Your task to perform on an android device: clear history in the chrome app Image 0: 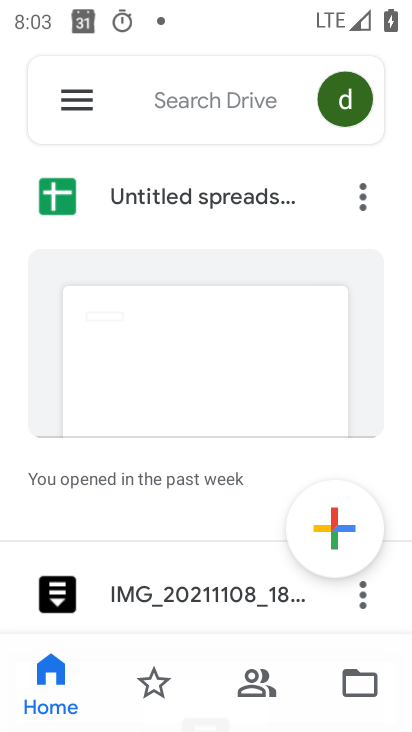
Step 0: press home button
Your task to perform on an android device: clear history in the chrome app Image 1: 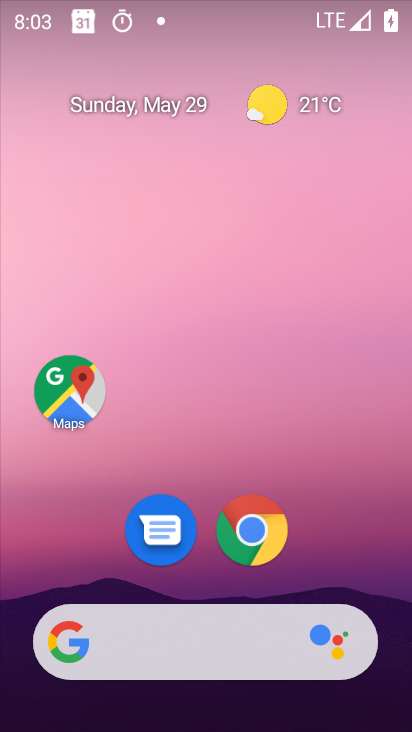
Step 1: drag from (265, 685) to (245, 245)
Your task to perform on an android device: clear history in the chrome app Image 2: 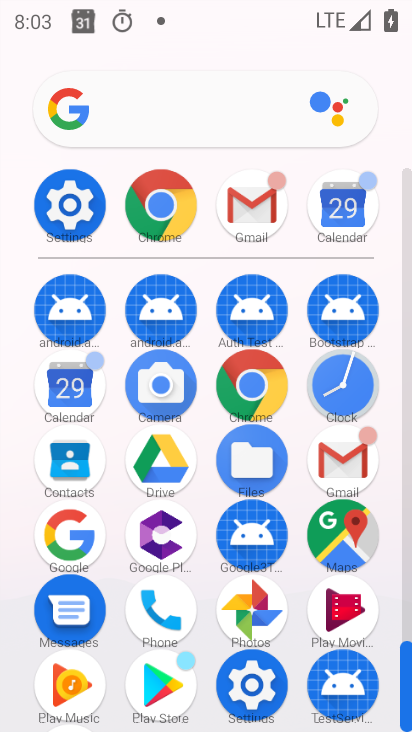
Step 2: click (171, 220)
Your task to perform on an android device: clear history in the chrome app Image 3: 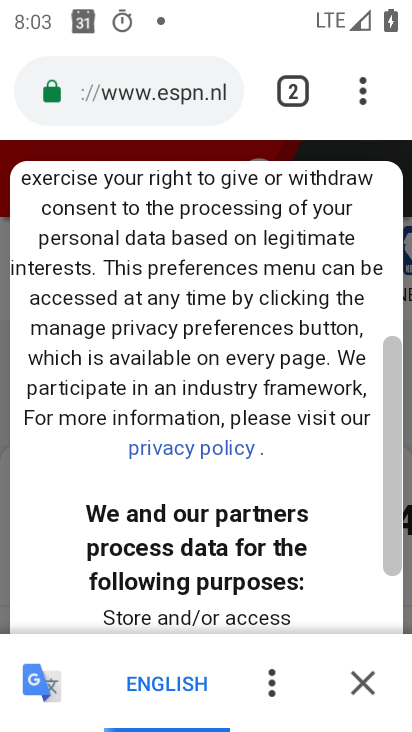
Step 3: click (356, 91)
Your task to perform on an android device: clear history in the chrome app Image 4: 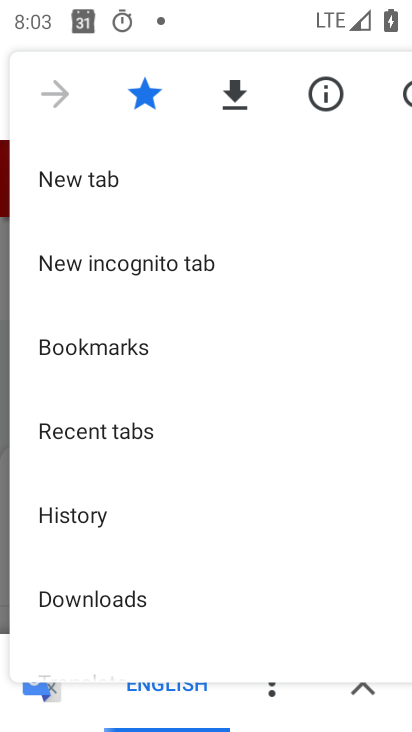
Step 4: click (113, 510)
Your task to perform on an android device: clear history in the chrome app Image 5: 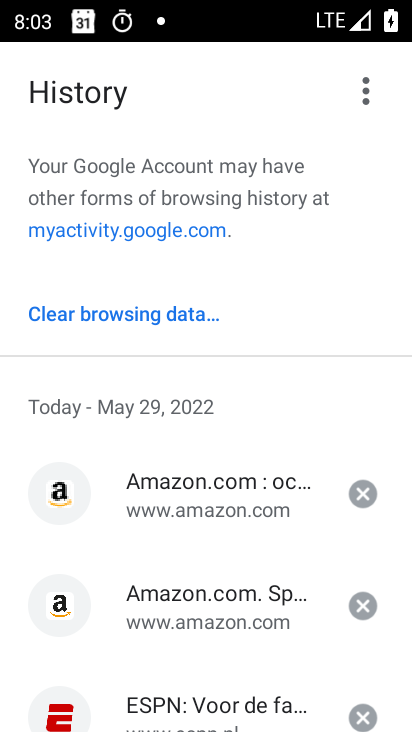
Step 5: click (80, 314)
Your task to perform on an android device: clear history in the chrome app Image 6: 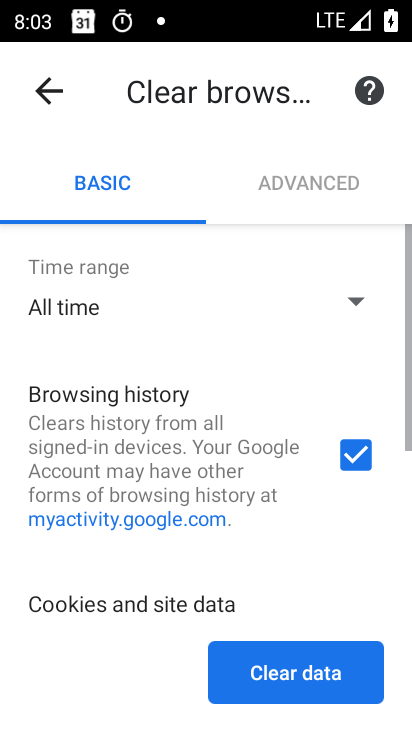
Step 6: click (319, 686)
Your task to perform on an android device: clear history in the chrome app Image 7: 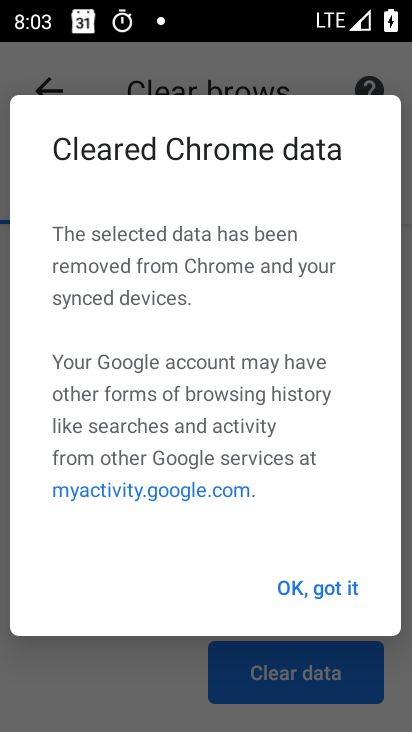
Step 7: click (346, 594)
Your task to perform on an android device: clear history in the chrome app Image 8: 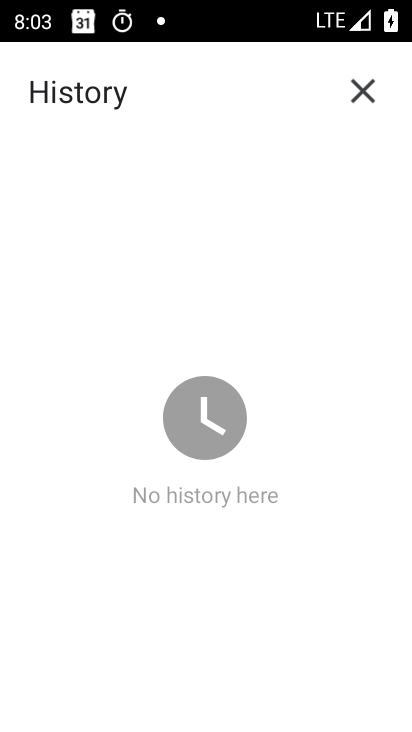
Step 8: task complete